Your task to perform on an android device: Open sound settings Image 0: 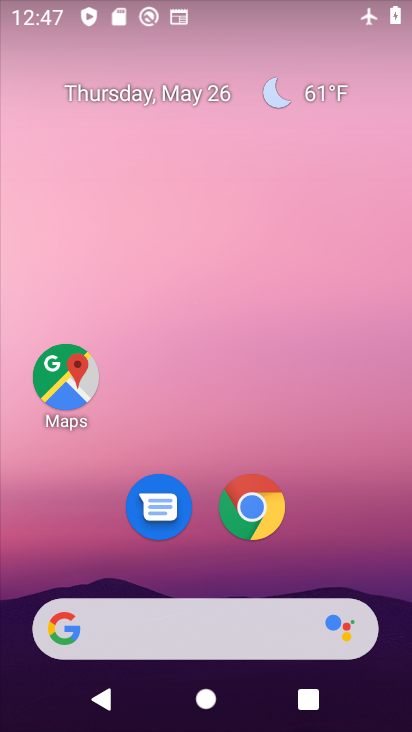
Step 0: drag from (366, 546) to (285, 154)
Your task to perform on an android device: Open sound settings Image 1: 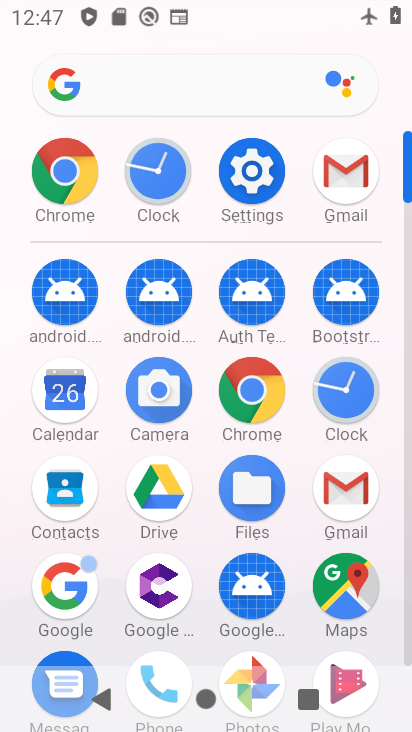
Step 1: click (244, 180)
Your task to perform on an android device: Open sound settings Image 2: 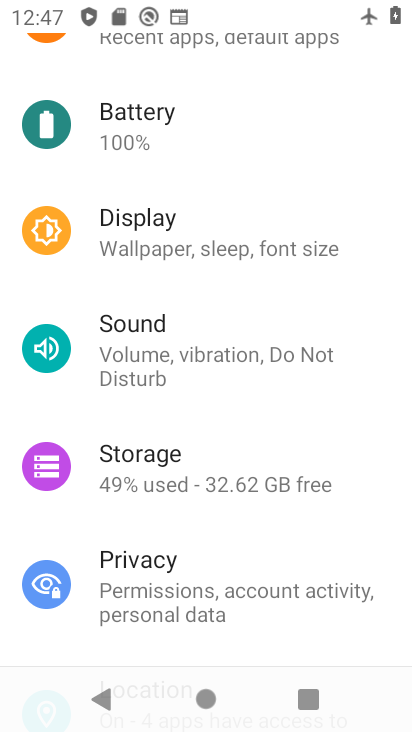
Step 2: drag from (323, 131) to (307, 496)
Your task to perform on an android device: Open sound settings Image 3: 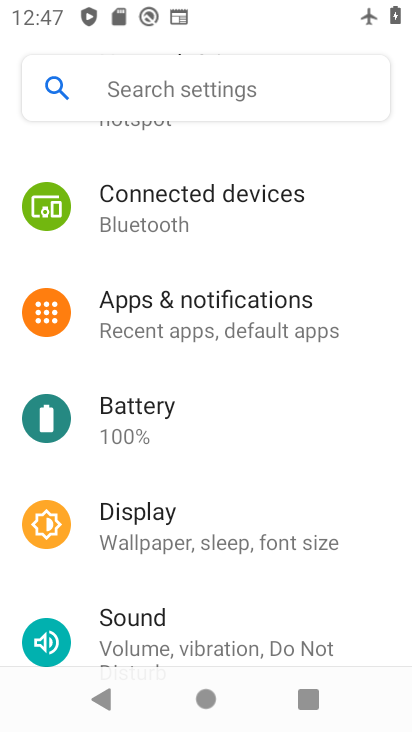
Step 3: drag from (310, 210) to (274, 713)
Your task to perform on an android device: Open sound settings Image 4: 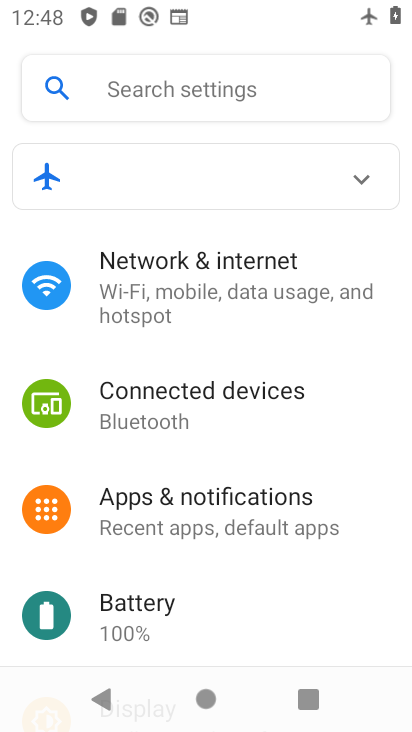
Step 4: click (257, 301)
Your task to perform on an android device: Open sound settings Image 5: 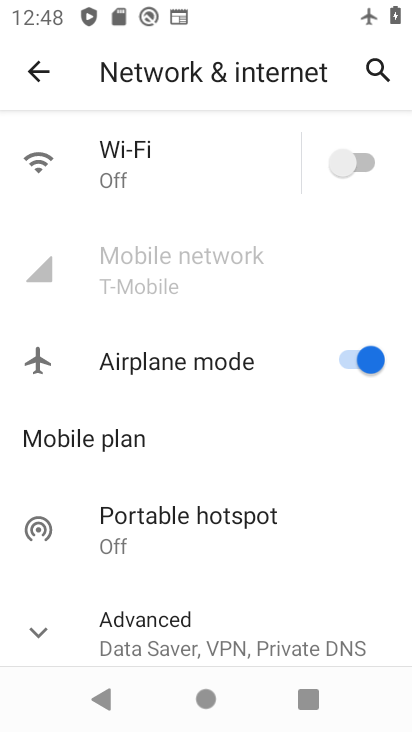
Step 5: click (335, 331)
Your task to perform on an android device: Open sound settings Image 6: 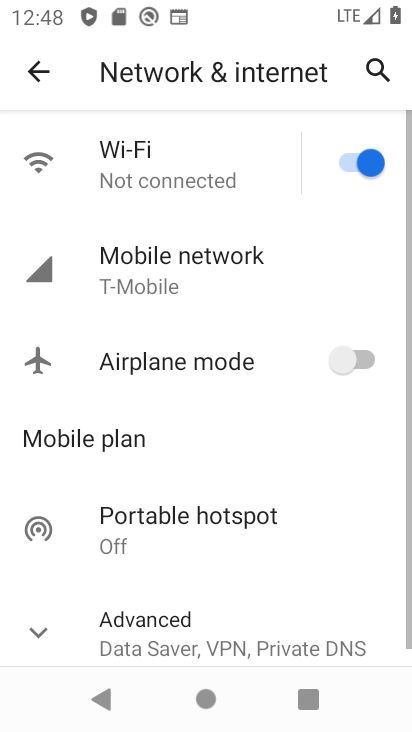
Step 6: click (47, 83)
Your task to perform on an android device: Open sound settings Image 7: 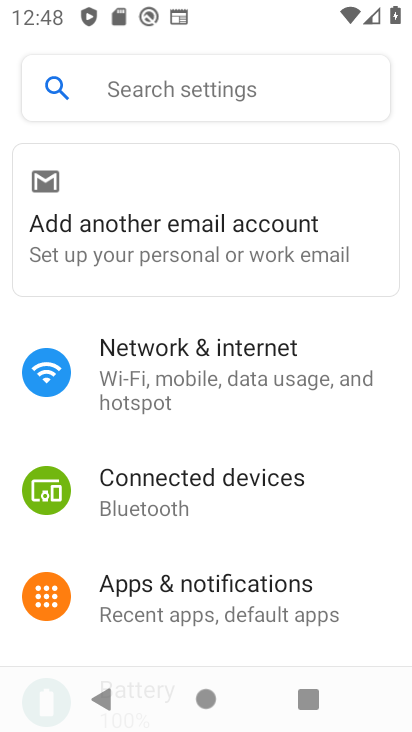
Step 7: drag from (191, 571) to (190, 457)
Your task to perform on an android device: Open sound settings Image 8: 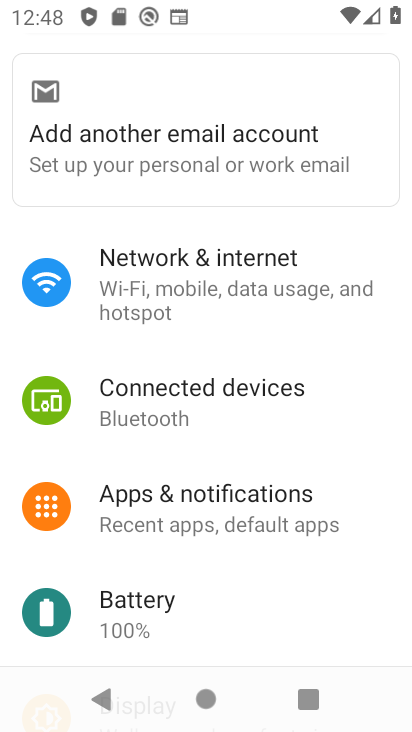
Step 8: drag from (191, 604) to (185, 513)
Your task to perform on an android device: Open sound settings Image 9: 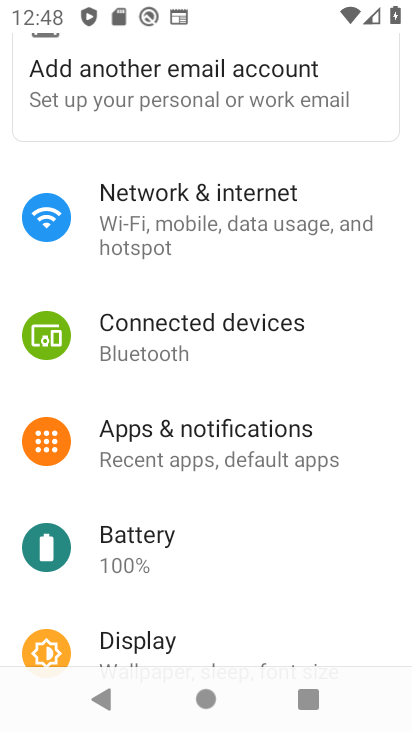
Step 9: click (185, 517)
Your task to perform on an android device: Open sound settings Image 10: 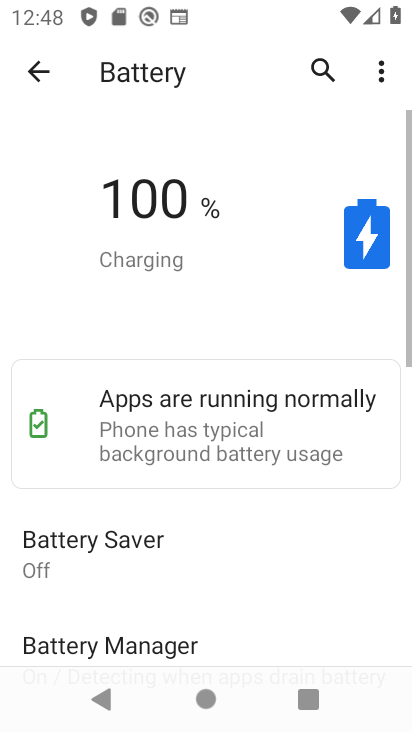
Step 10: task complete